Your task to perform on an android device: Go to Google Image 0: 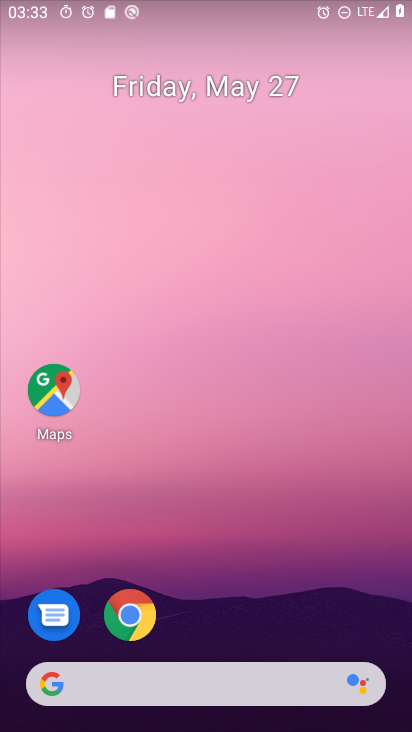
Step 0: drag from (356, 618) to (379, 222)
Your task to perform on an android device: Go to Google Image 1: 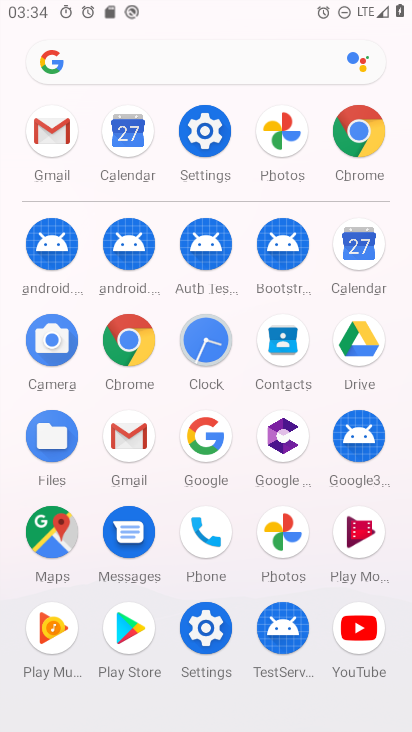
Step 1: click (199, 449)
Your task to perform on an android device: Go to Google Image 2: 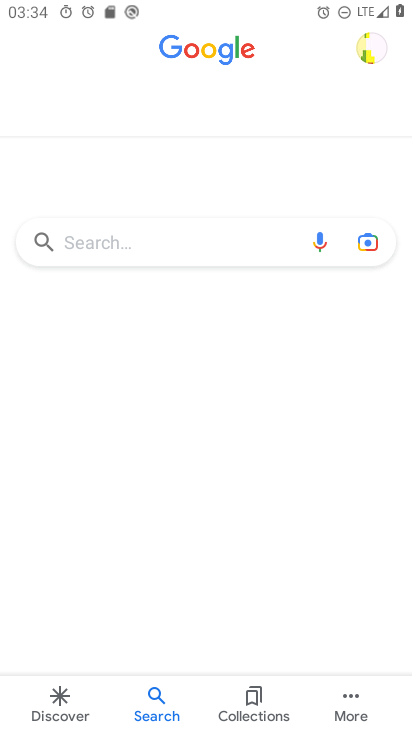
Step 2: task complete